Your task to perform on an android device: search for starred emails in the gmail app Image 0: 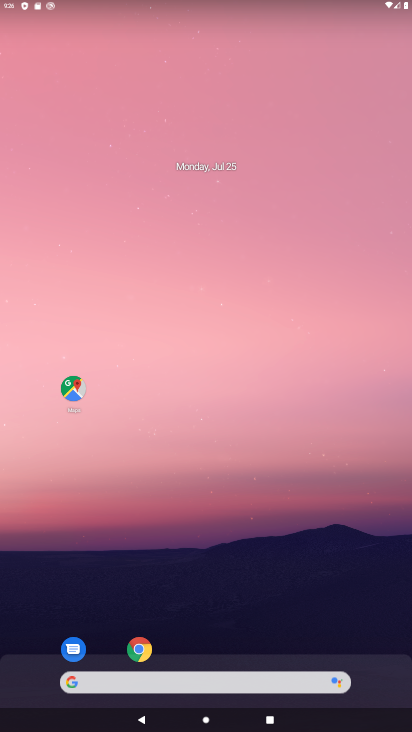
Step 0: drag from (204, 540) to (285, 41)
Your task to perform on an android device: search for starred emails in the gmail app Image 1: 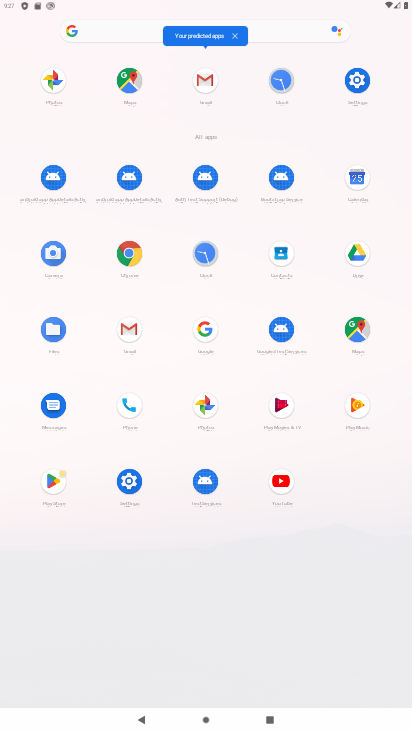
Step 1: click (135, 330)
Your task to perform on an android device: search for starred emails in the gmail app Image 2: 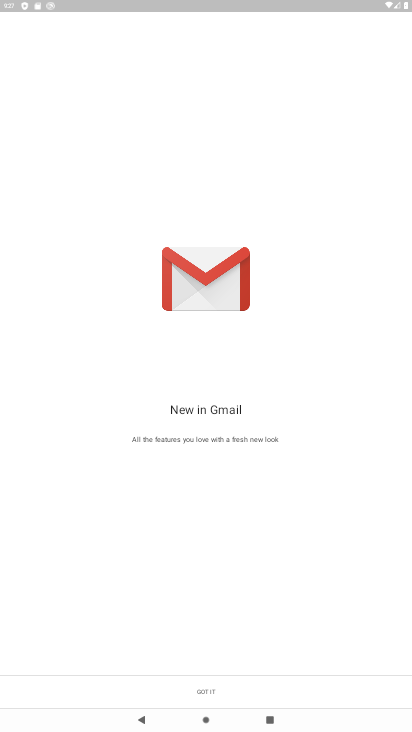
Step 2: click (192, 683)
Your task to perform on an android device: search for starred emails in the gmail app Image 3: 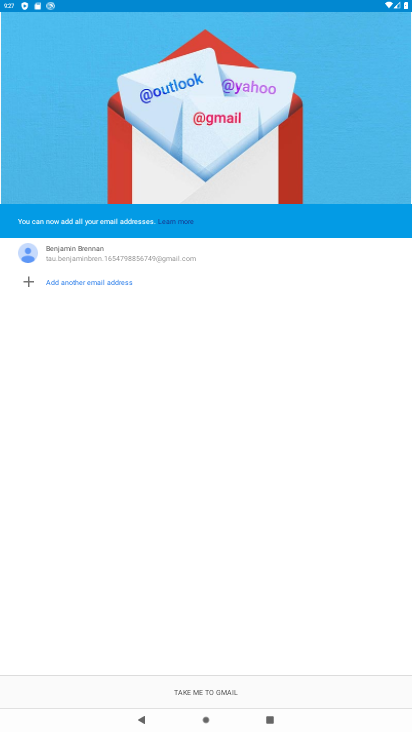
Step 3: click (230, 684)
Your task to perform on an android device: search for starred emails in the gmail app Image 4: 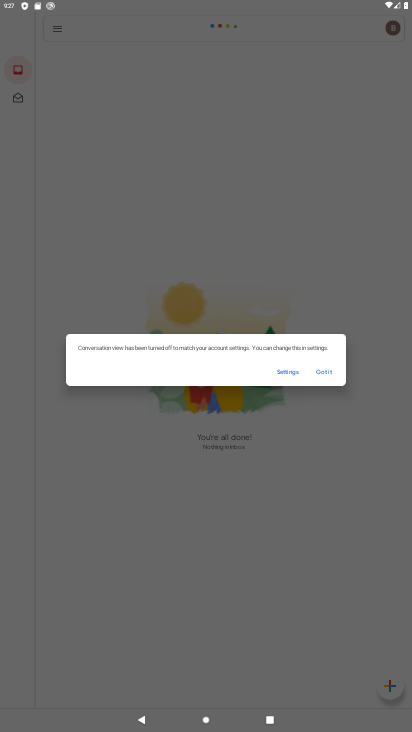
Step 4: click (319, 370)
Your task to perform on an android device: search for starred emails in the gmail app Image 5: 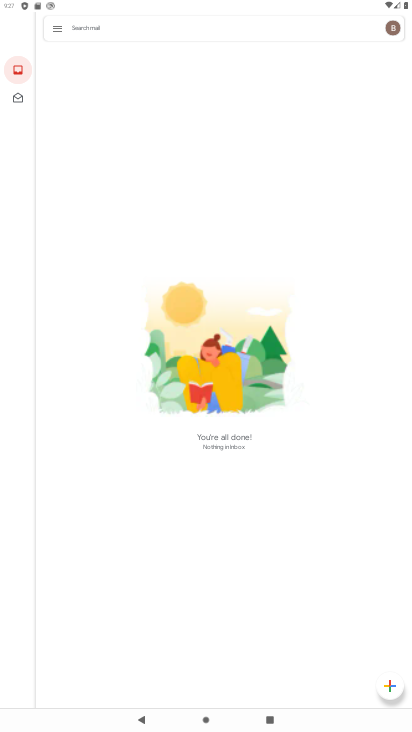
Step 5: click (56, 28)
Your task to perform on an android device: search for starred emails in the gmail app Image 6: 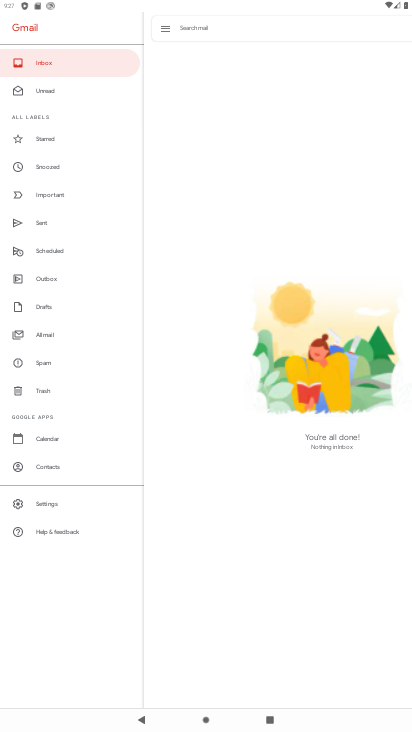
Step 6: click (51, 142)
Your task to perform on an android device: search for starred emails in the gmail app Image 7: 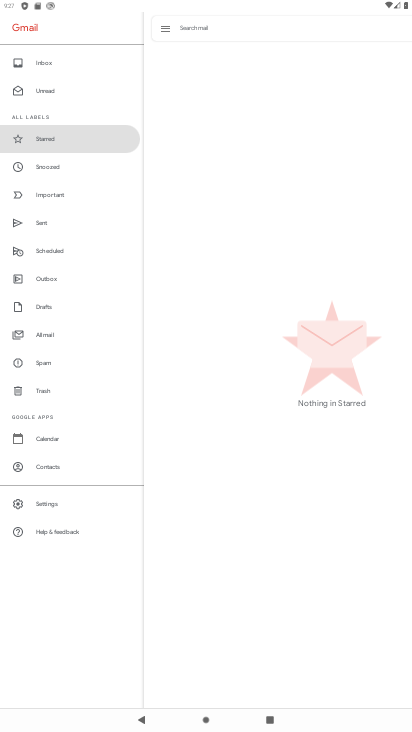
Step 7: task complete